Your task to perform on an android device: Open Google Chrome and click the shortcut for Amazon.com Image 0: 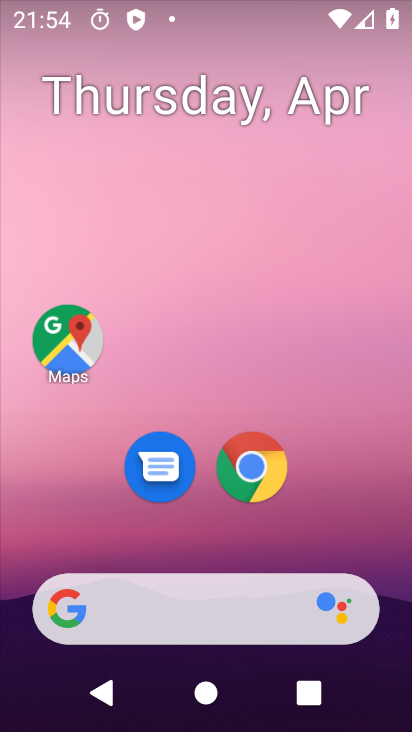
Step 0: click (252, 447)
Your task to perform on an android device: Open Google Chrome and click the shortcut for Amazon.com Image 1: 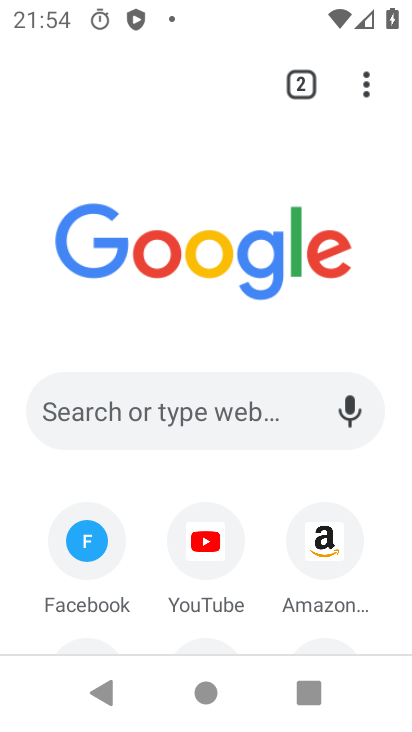
Step 1: click (329, 543)
Your task to perform on an android device: Open Google Chrome and click the shortcut for Amazon.com Image 2: 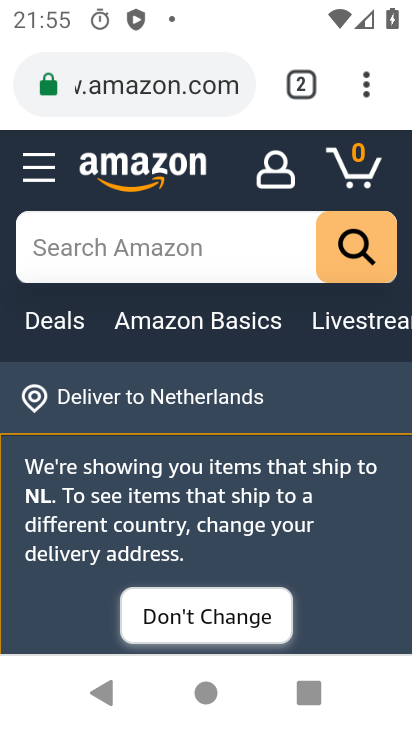
Step 2: task complete